Your task to perform on an android device: Go to Maps Image 0: 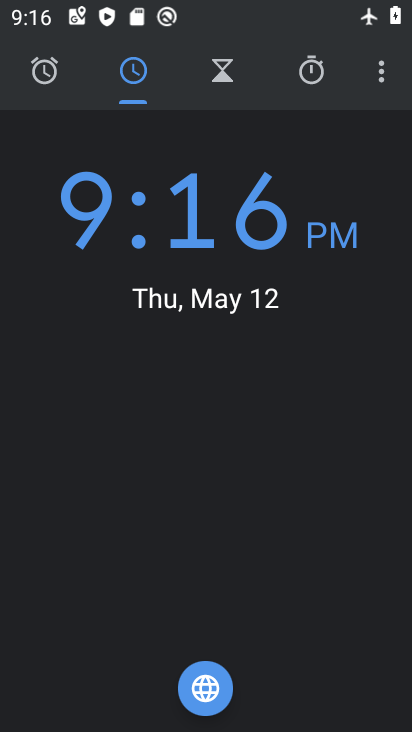
Step 0: press home button
Your task to perform on an android device: Go to Maps Image 1: 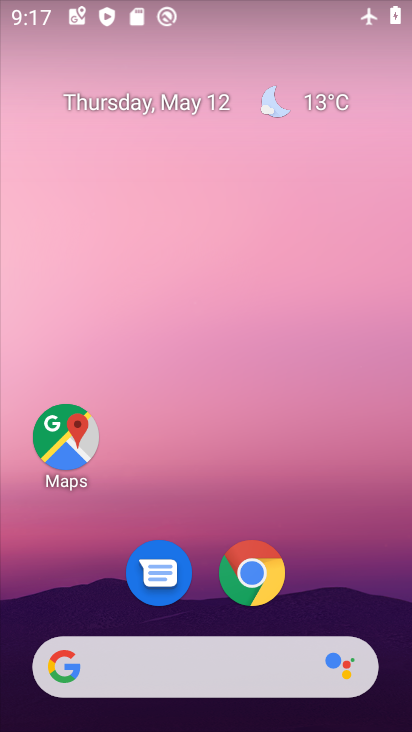
Step 1: click (87, 439)
Your task to perform on an android device: Go to Maps Image 2: 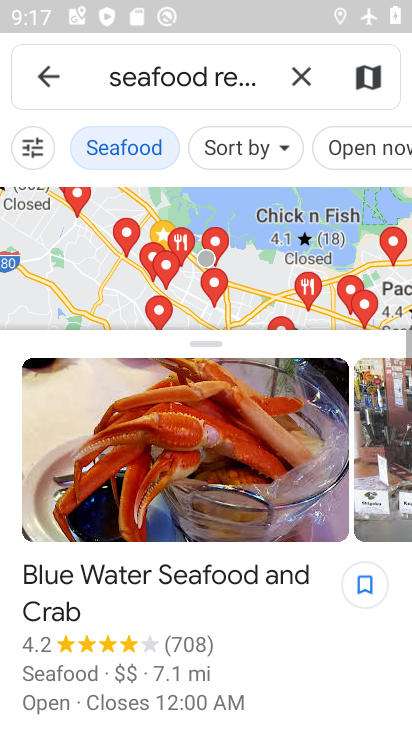
Step 2: click (76, 447)
Your task to perform on an android device: Go to Maps Image 3: 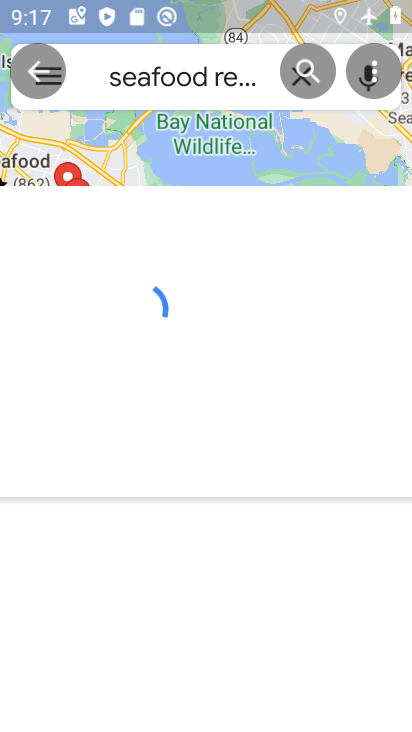
Step 3: task complete